Your task to perform on an android device: turn on improve location accuracy Image 0: 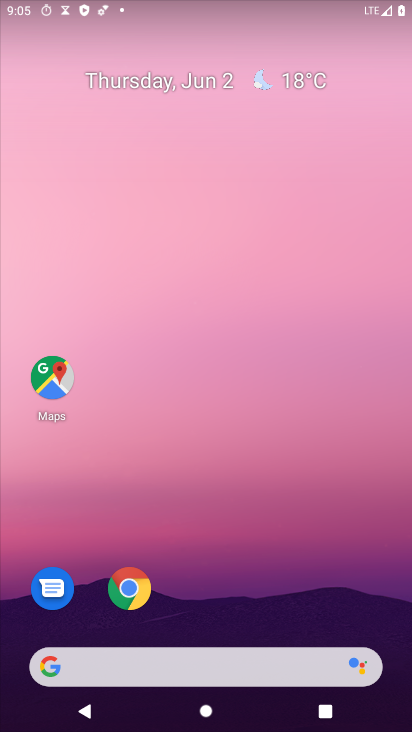
Step 0: drag from (214, 581) to (285, 63)
Your task to perform on an android device: turn on improve location accuracy Image 1: 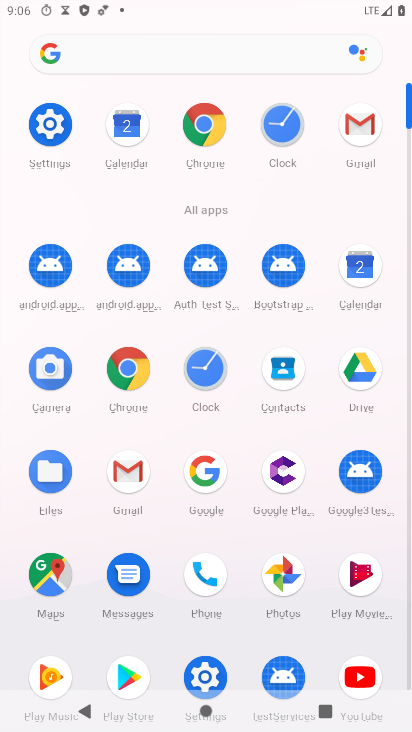
Step 1: click (43, 125)
Your task to perform on an android device: turn on improve location accuracy Image 2: 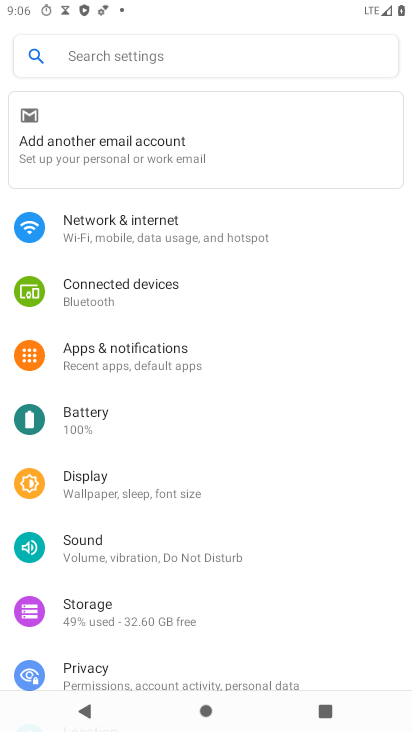
Step 2: drag from (136, 603) to (222, 135)
Your task to perform on an android device: turn on improve location accuracy Image 3: 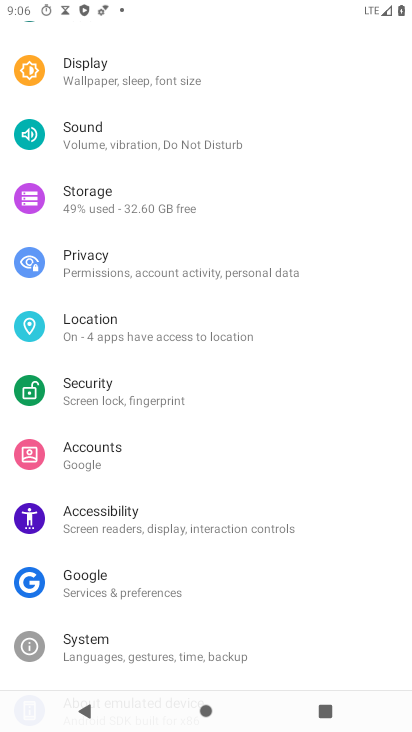
Step 3: click (125, 339)
Your task to perform on an android device: turn on improve location accuracy Image 4: 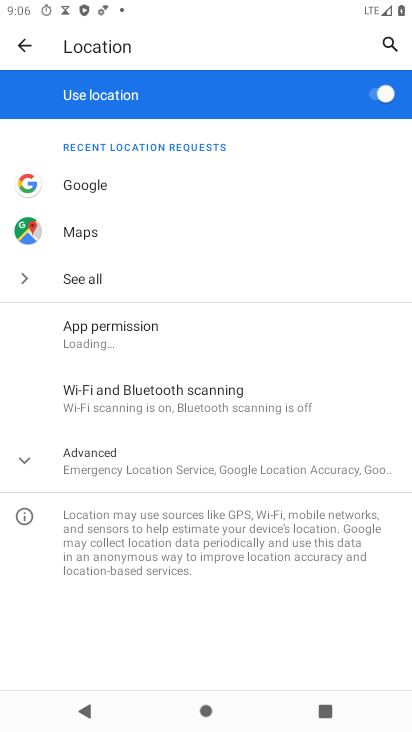
Step 4: click (127, 453)
Your task to perform on an android device: turn on improve location accuracy Image 5: 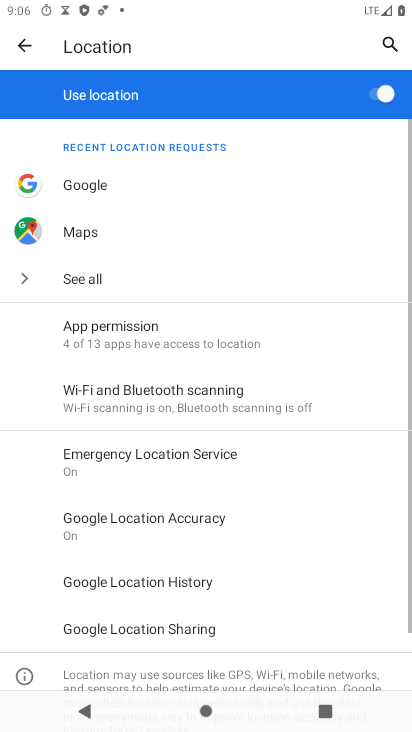
Step 5: click (196, 517)
Your task to perform on an android device: turn on improve location accuracy Image 6: 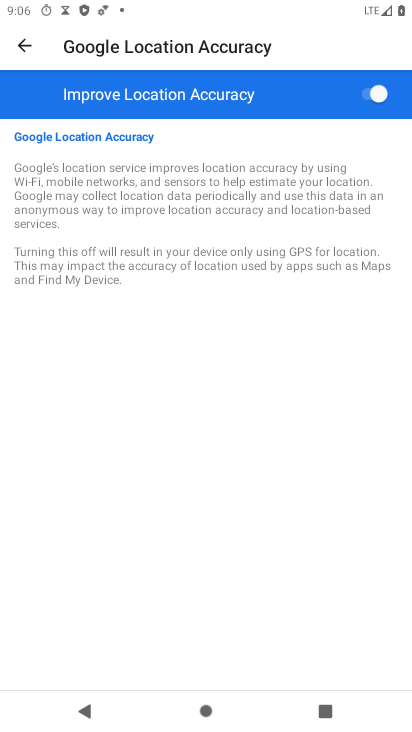
Step 6: task complete